Your task to perform on an android device: Open settings Image 0: 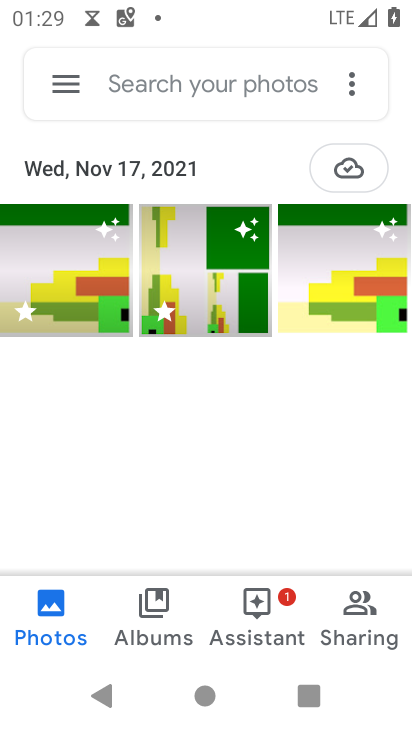
Step 0: press home button
Your task to perform on an android device: Open settings Image 1: 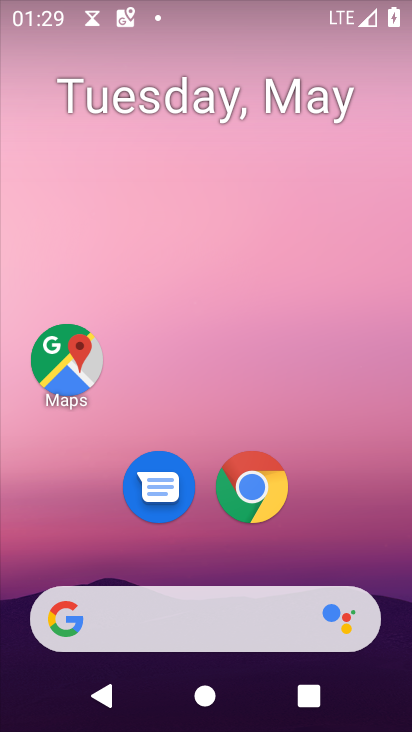
Step 1: drag from (179, 534) to (263, 71)
Your task to perform on an android device: Open settings Image 2: 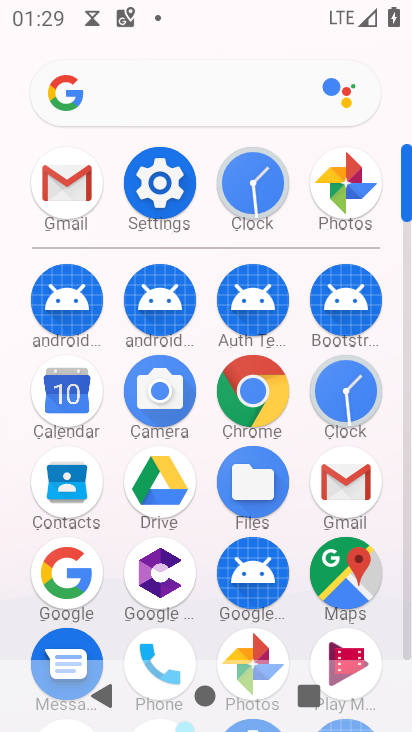
Step 2: click (168, 174)
Your task to perform on an android device: Open settings Image 3: 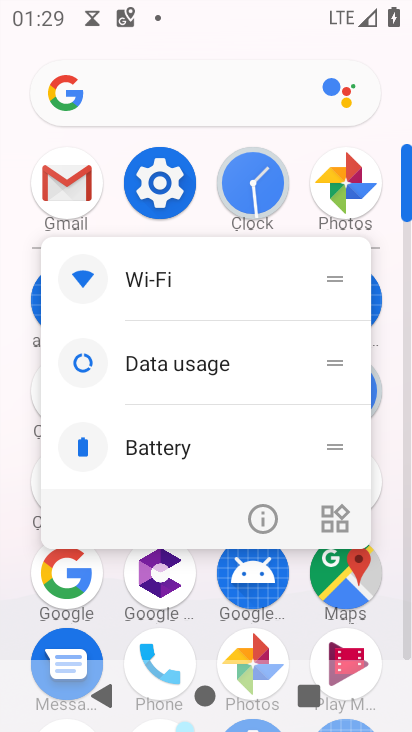
Step 3: click (169, 173)
Your task to perform on an android device: Open settings Image 4: 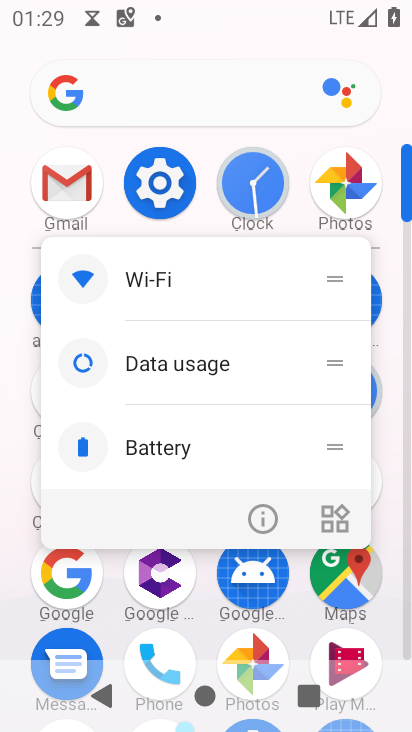
Step 4: click (169, 173)
Your task to perform on an android device: Open settings Image 5: 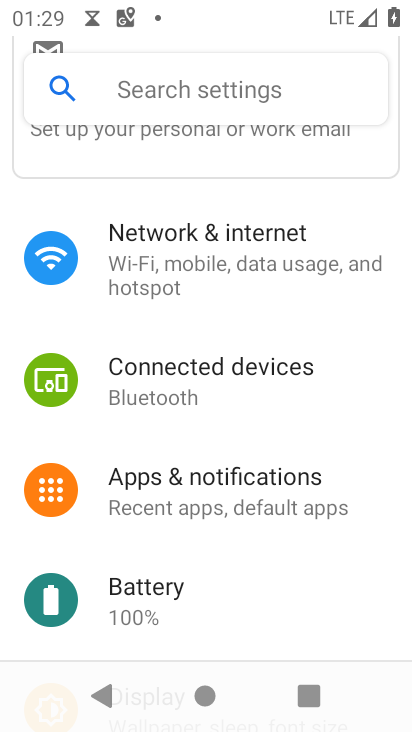
Step 5: task complete